Your task to perform on an android device: clear history in the chrome app Image 0: 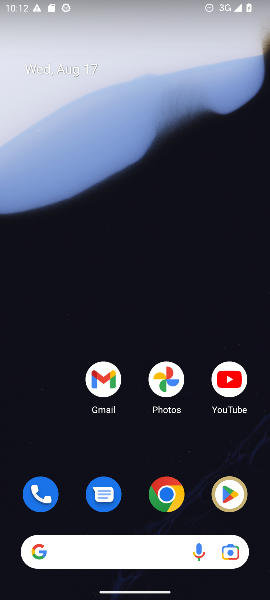
Step 0: press home button
Your task to perform on an android device: clear history in the chrome app Image 1: 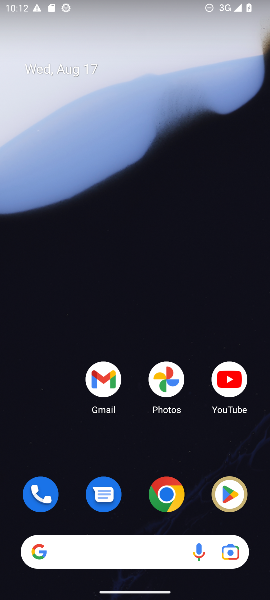
Step 1: drag from (197, 456) to (191, 41)
Your task to perform on an android device: clear history in the chrome app Image 2: 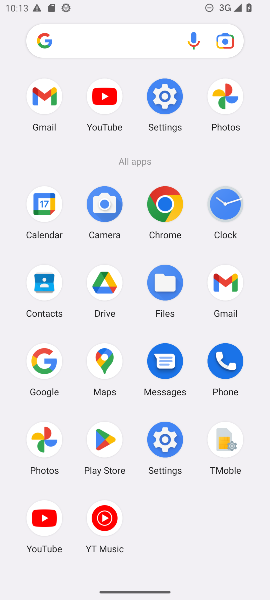
Step 2: click (163, 211)
Your task to perform on an android device: clear history in the chrome app Image 3: 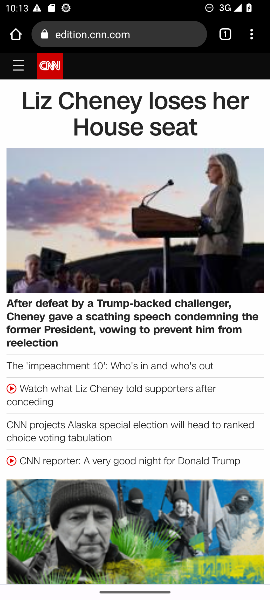
Step 3: drag from (254, 34) to (191, 142)
Your task to perform on an android device: clear history in the chrome app Image 4: 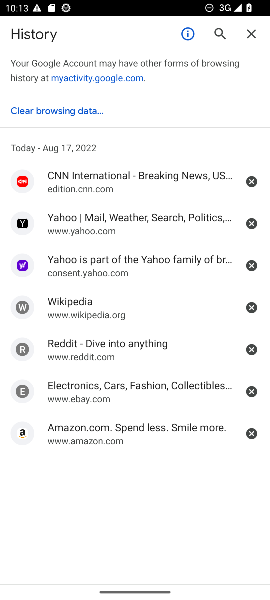
Step 4: click (25, 428)
Your task to perform on an android device: clear history in the chrome app Image 5: 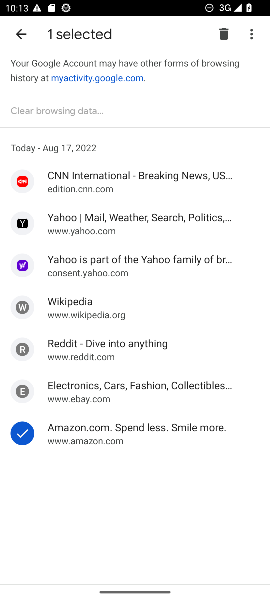
Step 5: click (22, 386)
Your task to perform on an android device: clear history in the chrome app Image 6: 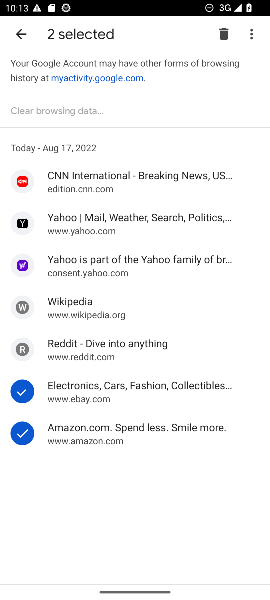
Step 6: click (25, 344)
Your task to perform on an android device: clear history in the chrome app Image 7: 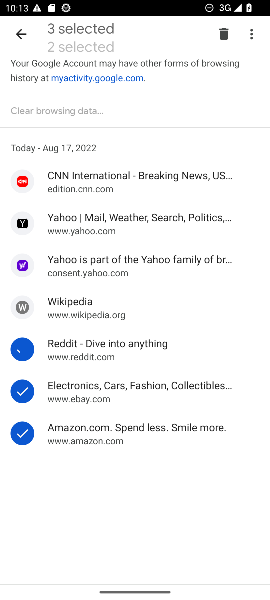
Step 7: click (19, 301)
Your task to perform on an android device: clear history in the chrome app Image 8: 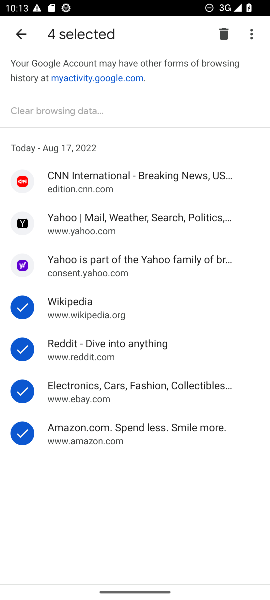
Step 8: click (27, 255)
Your task to perform on an android device: clear history in the chrome app Image 9: 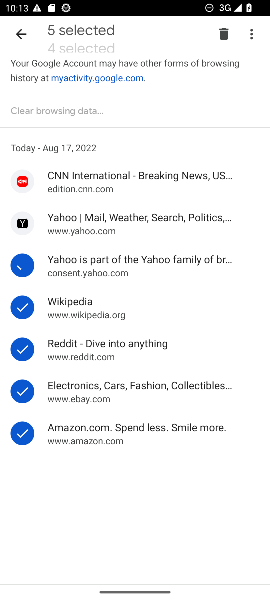
Step 9: click (30, 217)
Your task to perform on an android device: clear history in the chrome app Image 10: 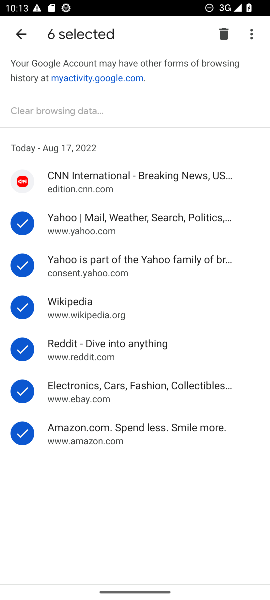
Step 10: click (19, 175)
Your task to perform on an android device: clear history in the chrome app Image 11: 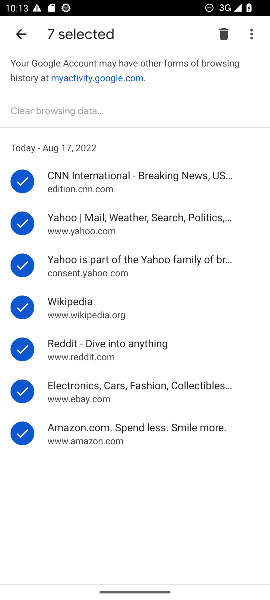
Step 11: click (225, 31)
Your task to perform on an android device: clear history in the chrome app Image 12: 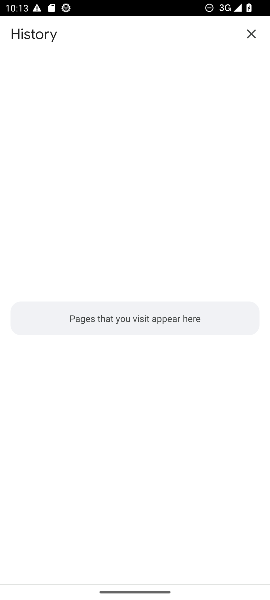
Step 12: task complete